Your task to perform on an android device: Go to calendar. Show me events next week Image 0: 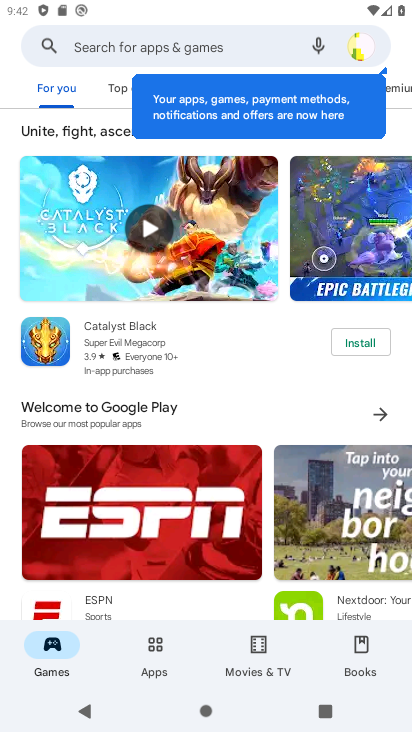
Step 0: press home button
Your task to perform on an android device: Go to calendar. Show me events next week Image 1: 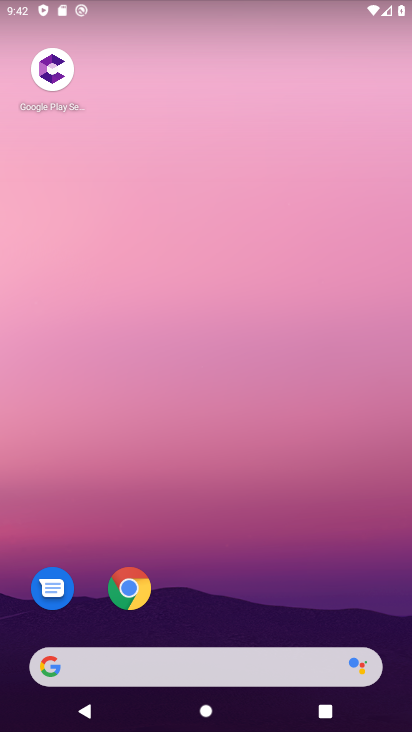
Step 1: drag from (195, 610) to (281, 4)
Your task to perform on an android device: Go to calendar. Show me events next week Image 2: 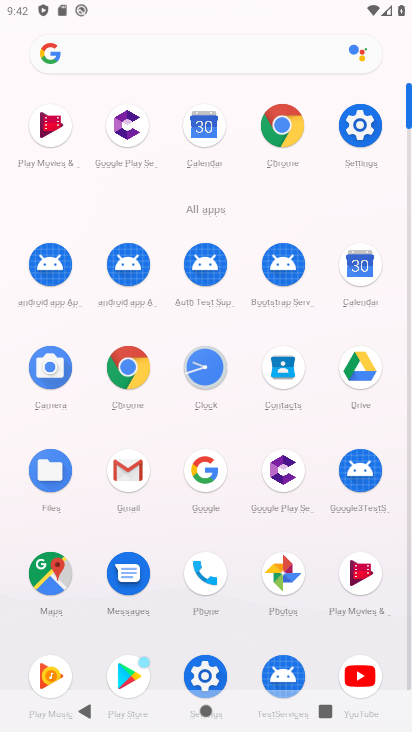
Step 2: click (363, 264)
Your task to perform on an android device: Go to calendar. Show me events next week Image 3: 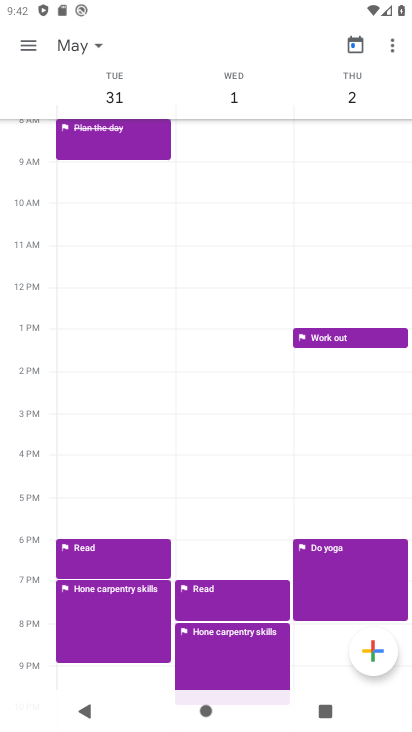
Step 3: click (37, 40)
Your task to perform on an android device: Go to calendar. Show me events next week Image 4: 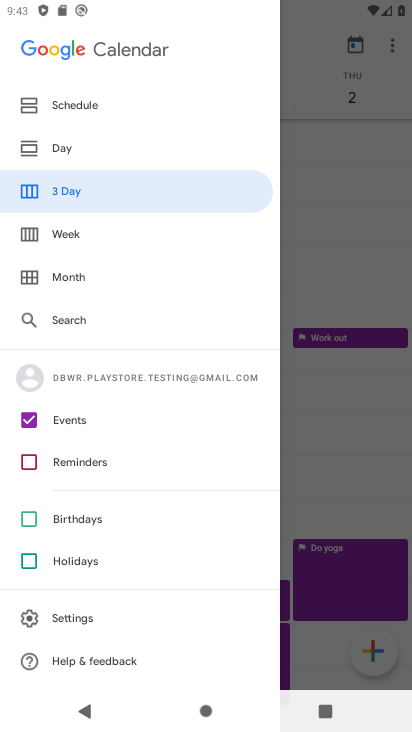
Step 4: click (67, 258)
Your task to perform on an android device: Go to calendar. Show me events next week Image 5: 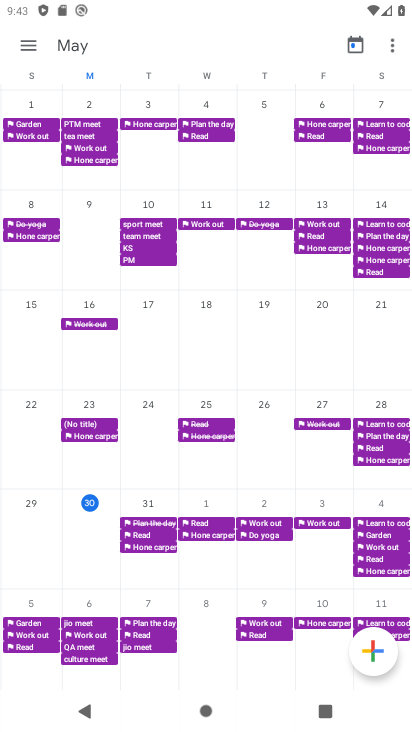
Step 5: click (27, 42)
Your task to perform on an android device: Go to calendar. Show me events next week Image 6: 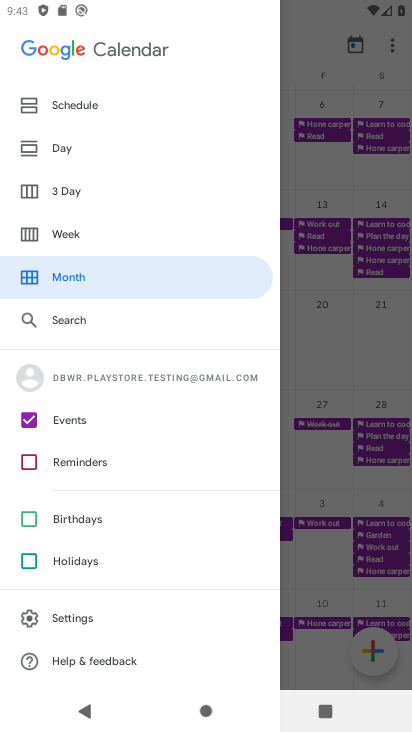
Step 6: click (71, 236)
Your task to perform on an android device: Go to calendar. Show me events next week Image 7: 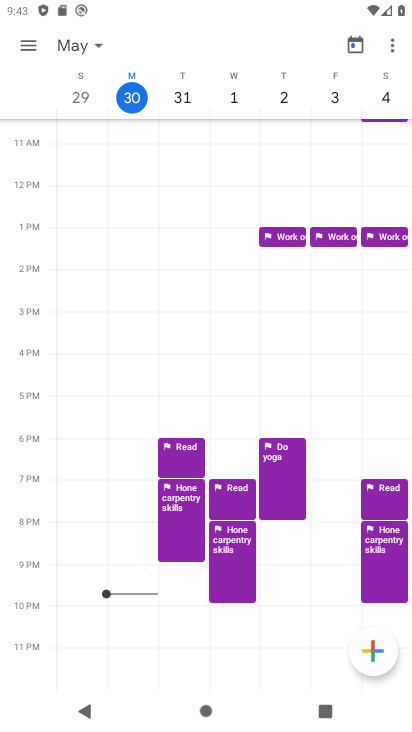
Step 7: task complete